Your task to perform on an android device: turn notification dots on Image 0: 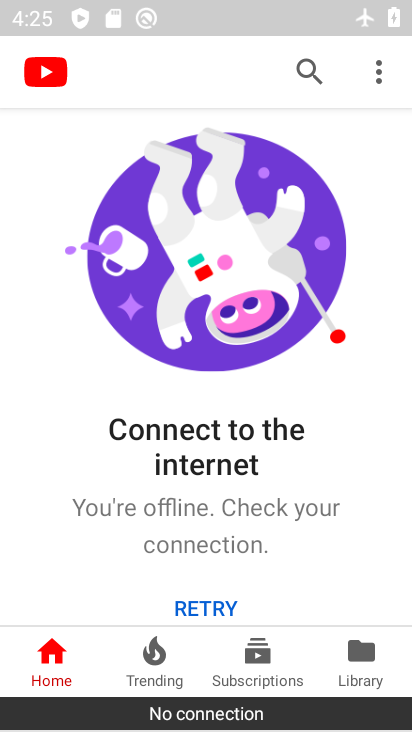
Step 0: press back button
Your task to perform on an android device: turn notification dots on Image 1: 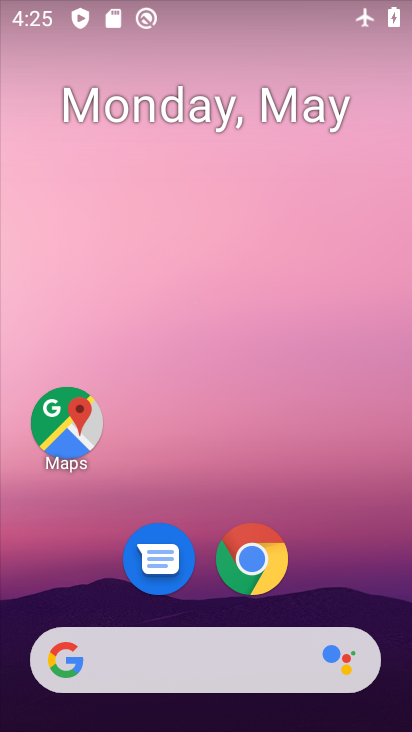
Step 1: drag from (310, 557) to (261, 40)
Your task to perform on an android device: turn notification dots on Image 2: 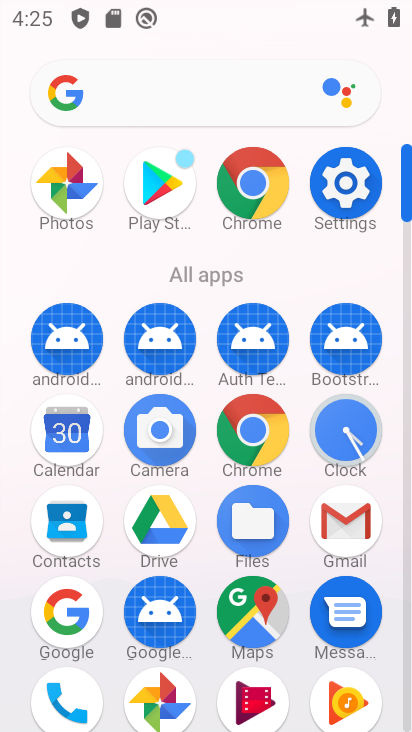
Step 2: drag from (5, 574) to (35, 212)
Your task to perform on an android device: turn notification dots on Image 3: 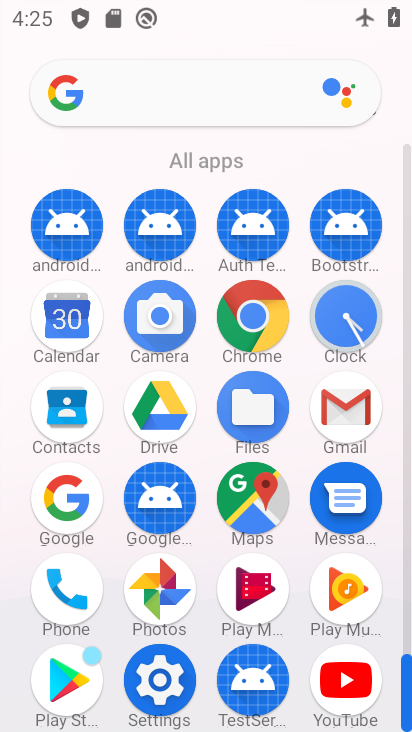
Step 3: click (159, 677)
Your task to perform on an android device: turn notification dots on Image 4: 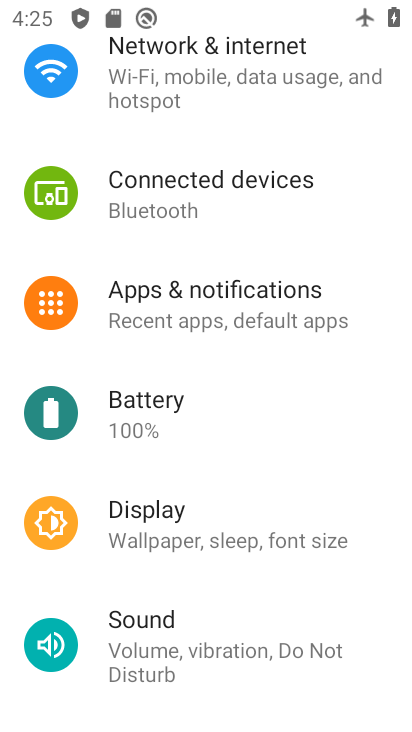
Step 4: drag from (305, 534) to (310, 140)
Your task to perform on an android device: turn notification dots on Image 5: 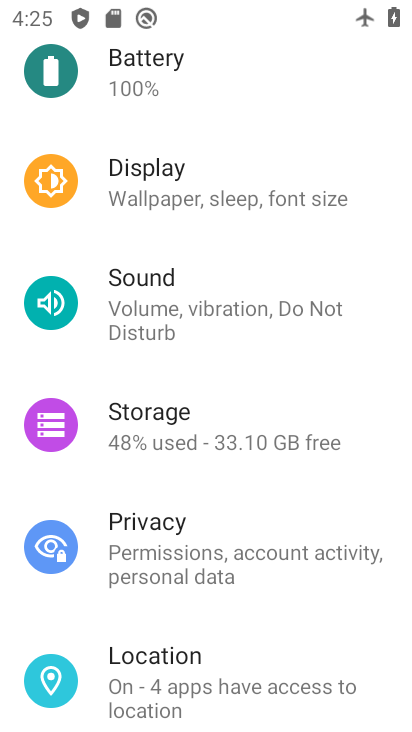
Step 5: drag from (311, 123) to (322, 558)
Your task to perform on an android device: turn notification dots on Image 6: 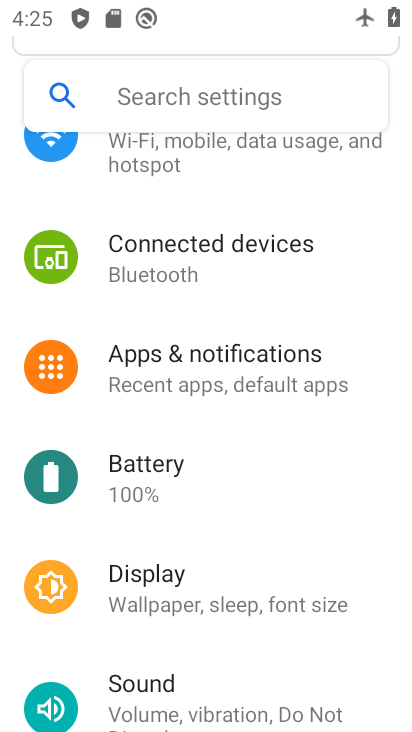
Step 6: click (238, 369)
Your task to perform on an android device: turn notification dots on Image 7: 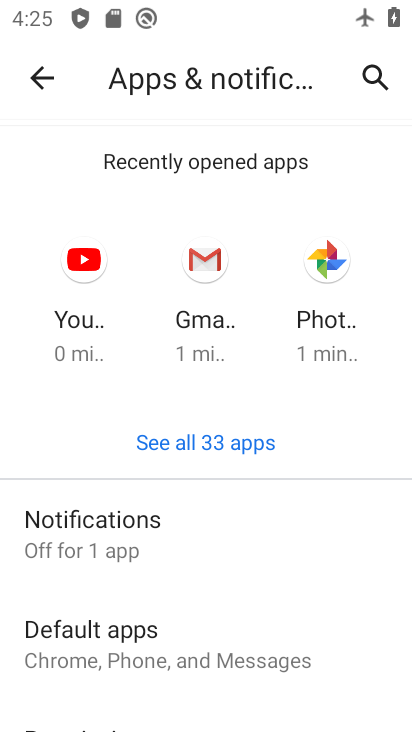
Step 7: click (162, 534)
Your task to perform on an android device: turn notification dots on Image 8: 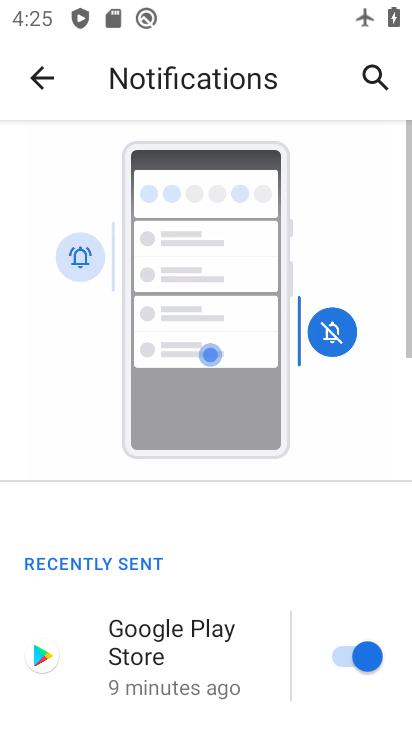
Step 8: drag from (227, 549) to (245, 130)
Your task to perform on an android device: turn notification dots on Image 9: 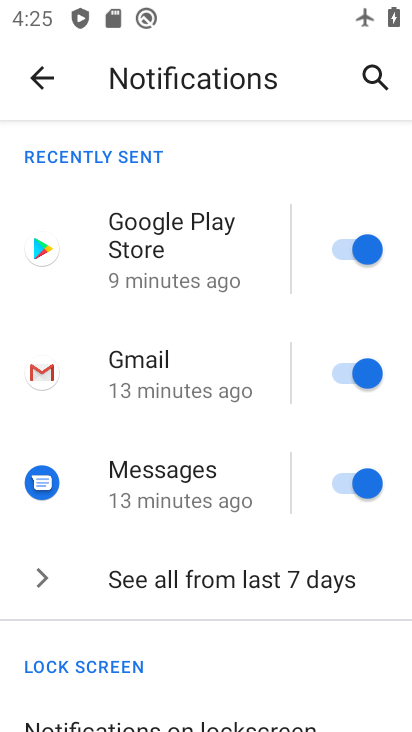
Step 9: drag from (186, 608) to (184, 116)
Your task to perform on an android device: turn notification dots on Image 10: 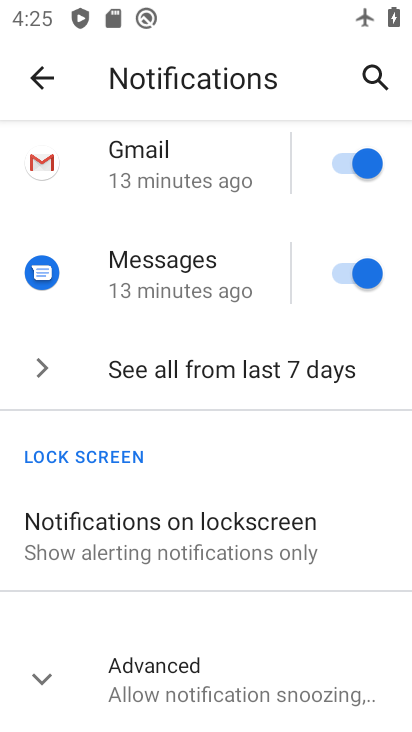
Step 10: click (176, 547)
Your task to perform on an android device: turn notification dots on Image 11: 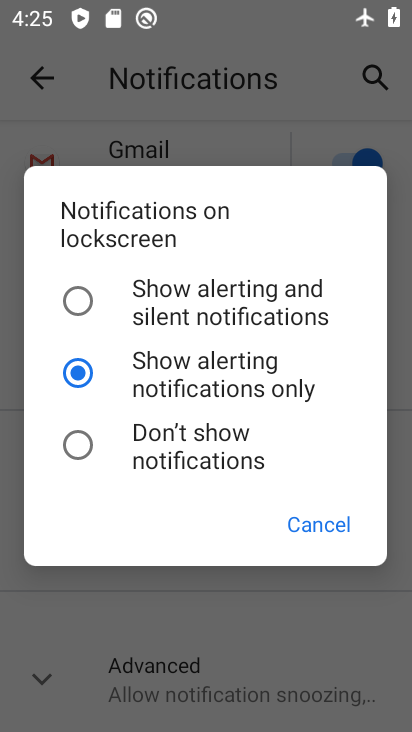
Step 11: click (169, 300)
Your task to perform on an android device: turn notification dots on Image 12: 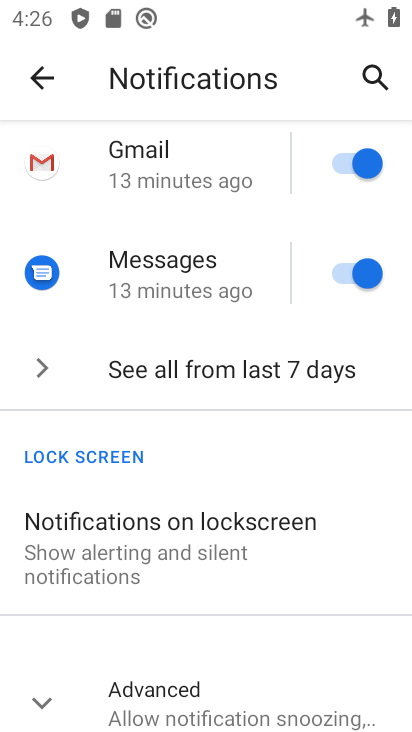
Step 12: click (24, 704)
Your task to perform on an android device: turn notification dots on Image 13: 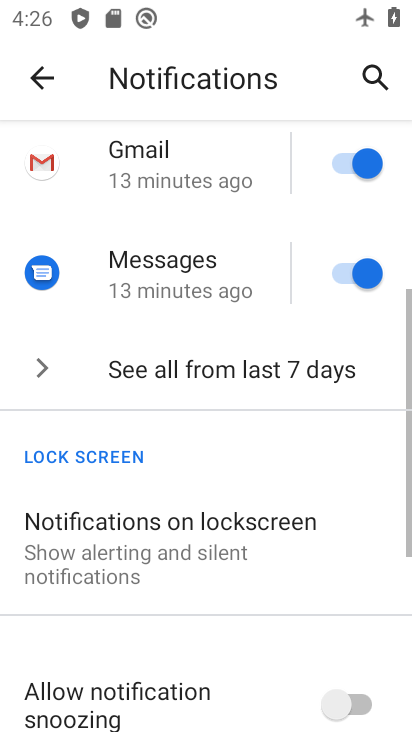
Step 13: task complete